Your task to perform on an android device: Open Google Chrome and click the shortcut for Amazon.com Image 0: 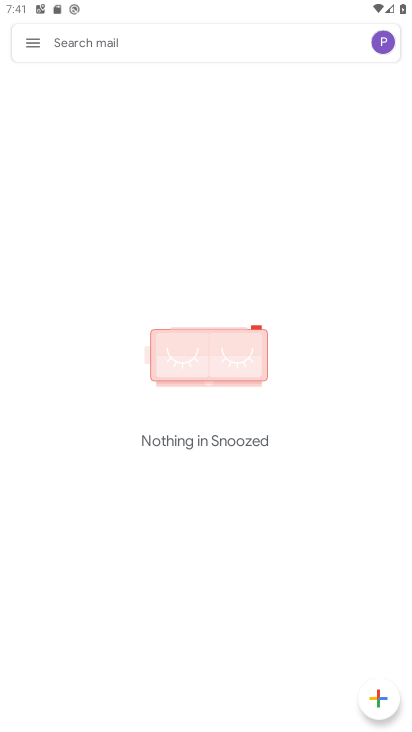
Step 0: press home button
Your task to perform on an android device: Open Google Chrome and click the shortcut for Amazon.com Image 1: 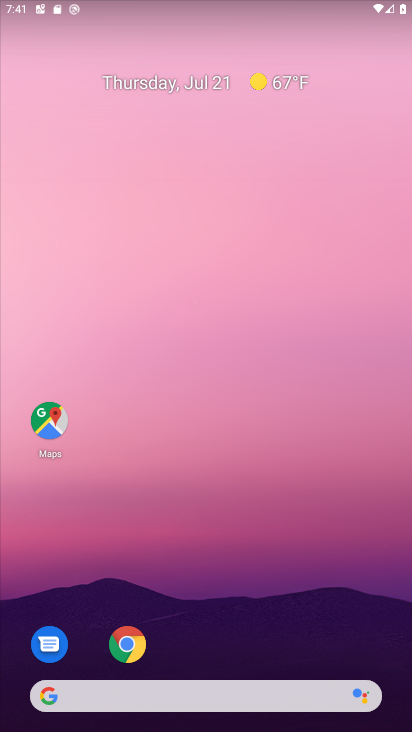
Step 1: drag from (243, 643) to (237, 148)
Your task to perform on an android device: Open Google Chrome and click the shortcut for Amazon.com Image 2: 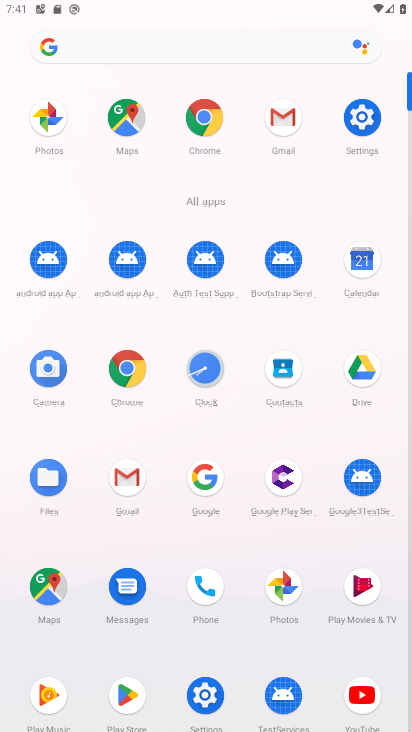
Step 2: click (135, 378)
Your task to perform on an android device: Open Google Chrome and click the shortcut for Amazon.com Image 3: 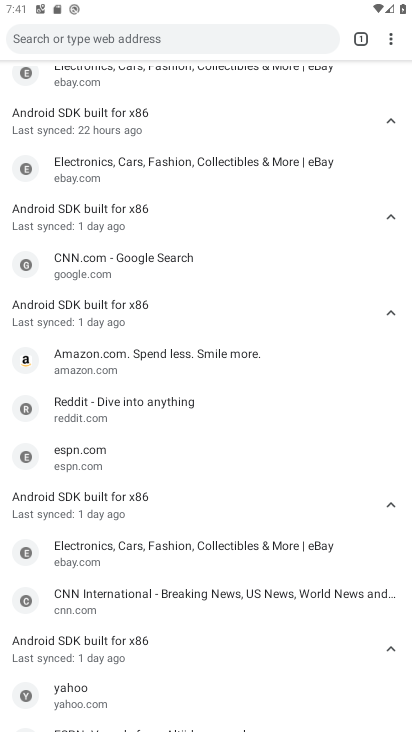
Step 3: click (391, 36)
Your task to perform on an android device: Open Google Chrome and click the shortcut for Amazon.com Image 4: 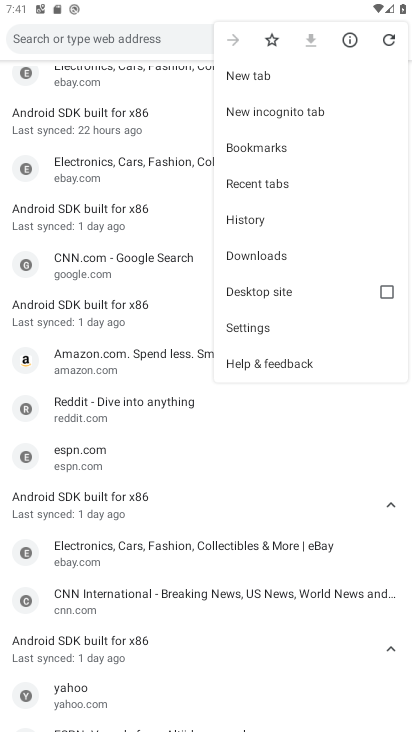
Step 4: click (248, 74)
Your task to perform on an android device: Open Google Chrome and click the shortcut for Amazon.com Image 5: 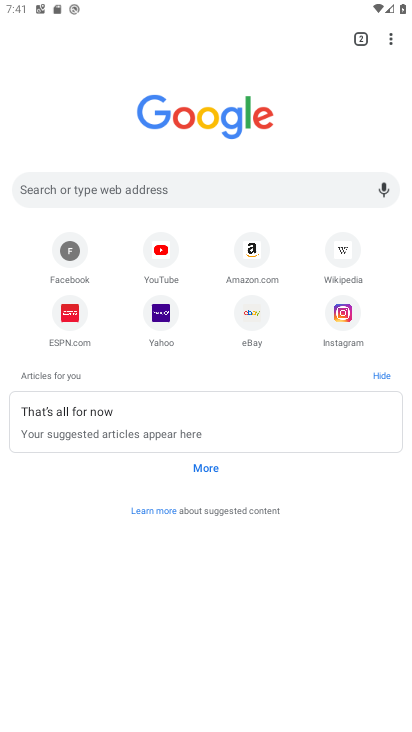
Step 5: click (255, 255)
Your task to perform on an android device: Open Google Chrome and click the shortcut for Amazon.com Image 6: 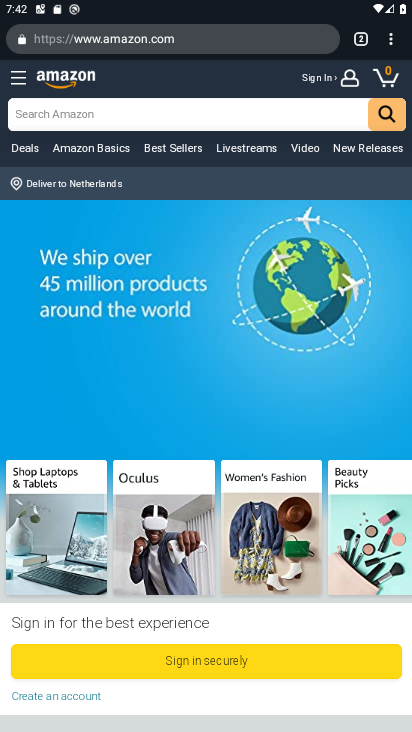
Step 6: task complete